Your task to perform on an android device: change the clock display to digital Image 0: 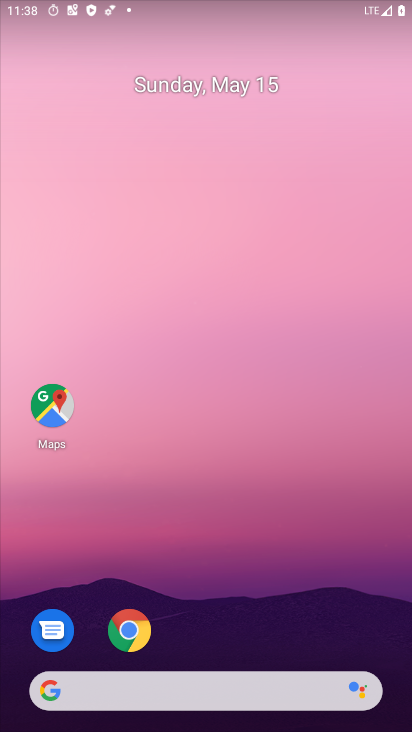
Step 0: drag from (196, 617) to (296, 97)
Your task to perform on an android device: change the clock display to digital Image 1: 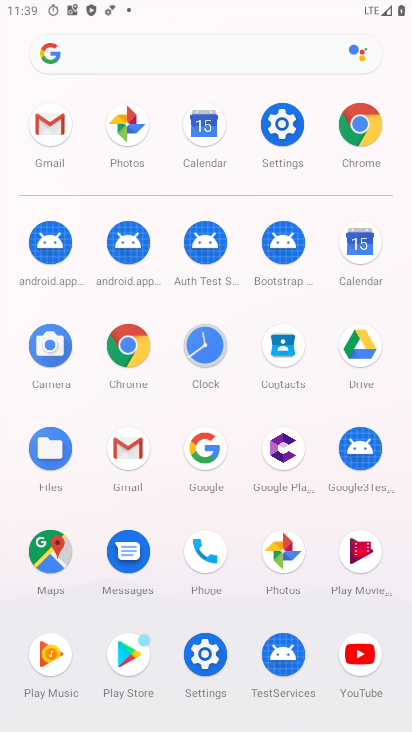
Step 1: click (199, 350)
Your task to perform on an android device: change the clock display to digital Image 2: 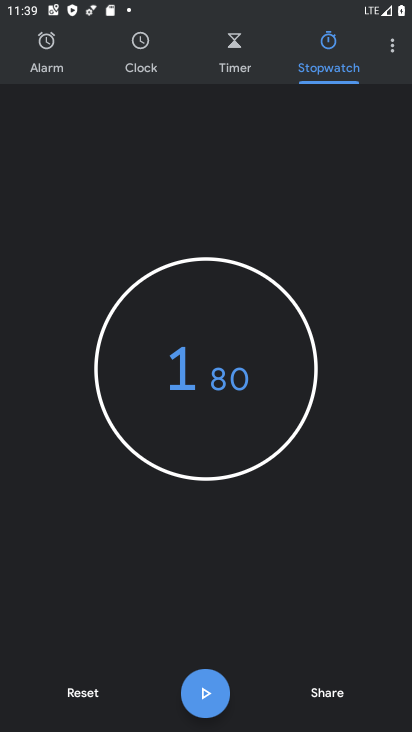
Step 2: click (391, 47)
Your task to perform on an android device: change the clock display to digital Image 3: 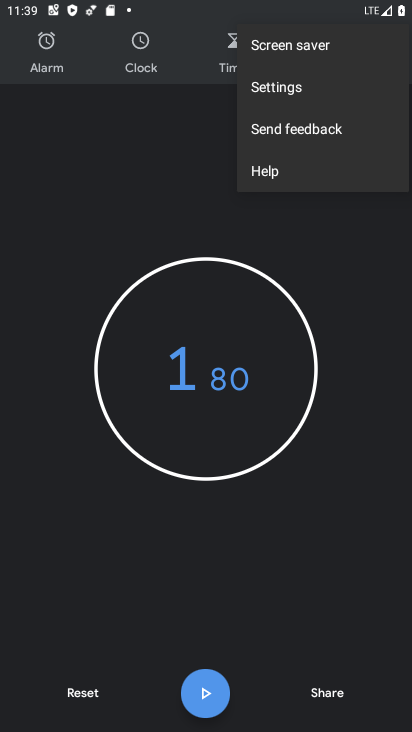
Step 3: click (277, 93)
Your task to perform on an android device: change the clock display to digital Image 4: 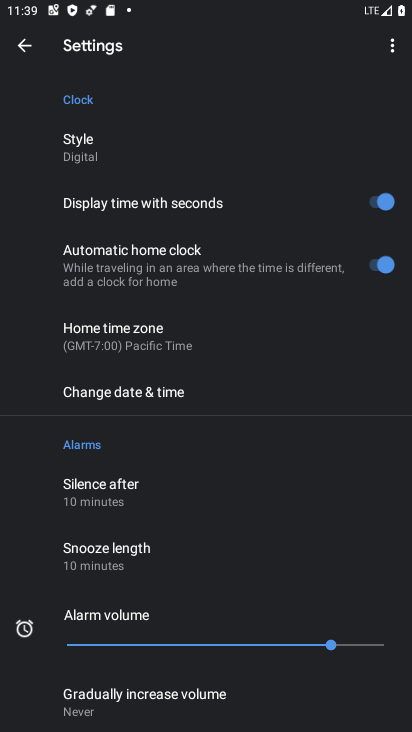
Step 4: task complete